Your task to perform on an android device: turn on javascript in the chrome app Image 0: 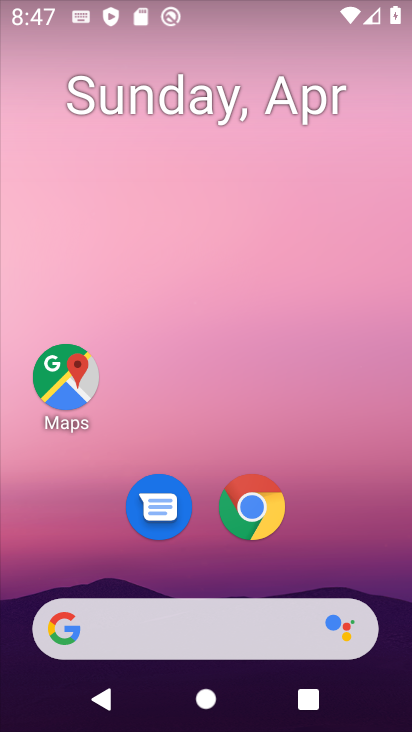
Step 0: drag from (245, 574) to (272, 159)
Your task to perform on an android device: turn on javascript in the chrome app Image 1: 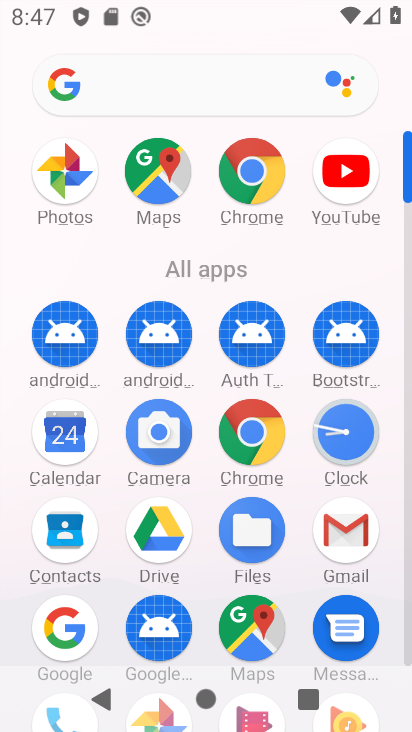
Step 1: click (248, 165)
Your task to perform on an android device: turn on javascript in the chrome app Image 2: 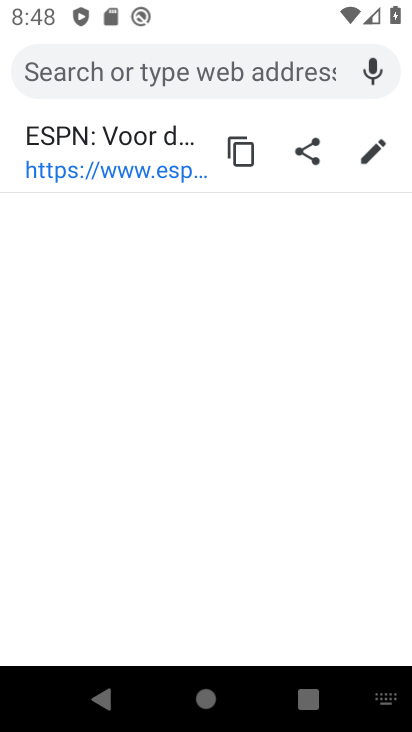
Step 2: click (96, 722)
Your task to perform on an android device: turn on javascript in the chrome app Image 3: 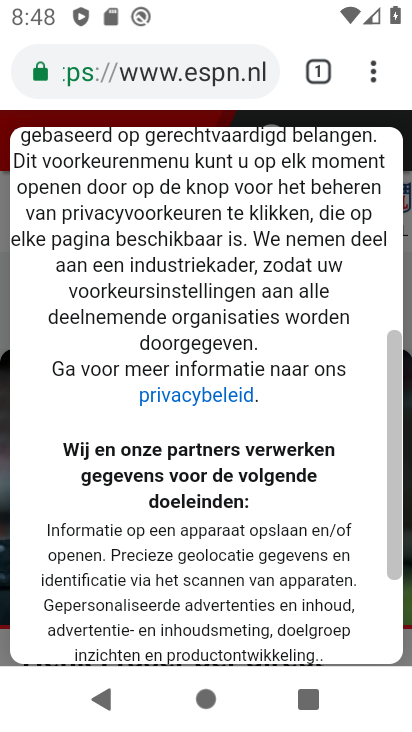
Step 3: click (377, 80)
Your task to perform on an android device: turn on javascript in the chrome app Image 4: 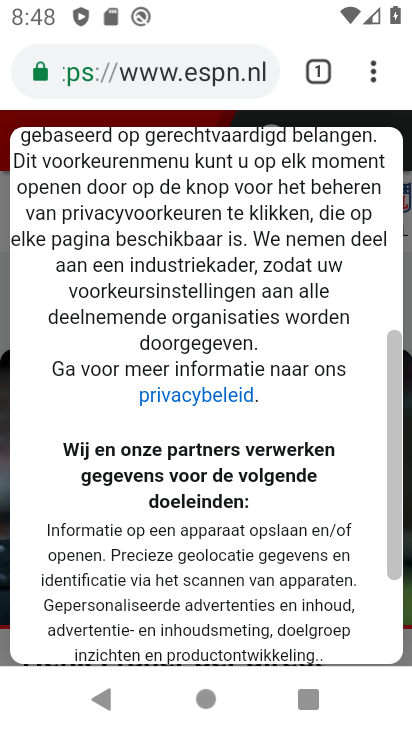
Step 4: click (379, 72)
Your task to perform on an android device: turn on javascript in the chrome app Image 5: 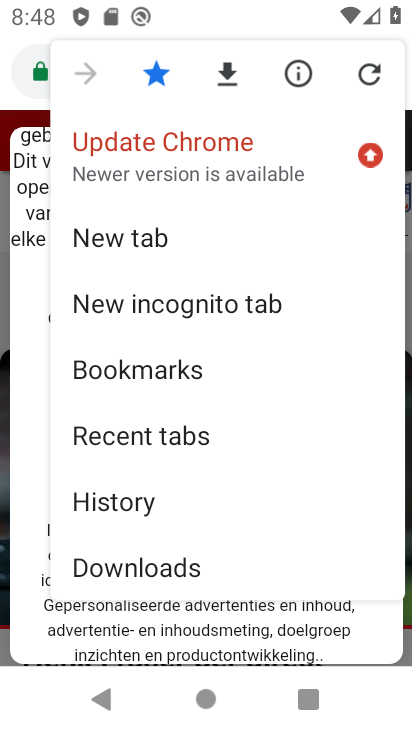
Step 5: drag from (178, 490) to (205, 107)
Your task to perform on an android device: turn on javascript in the chrome app Image 6: 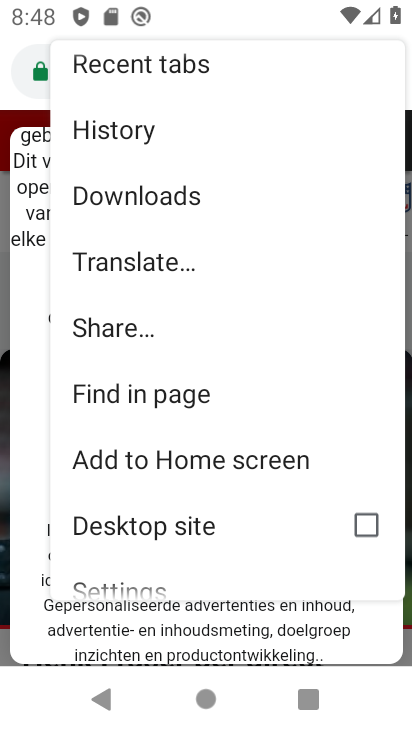
Step 6: drag from (181, 410) to (189, 105)
Your task to perform on an android device: turn on javascript in the chrome app Image 7: 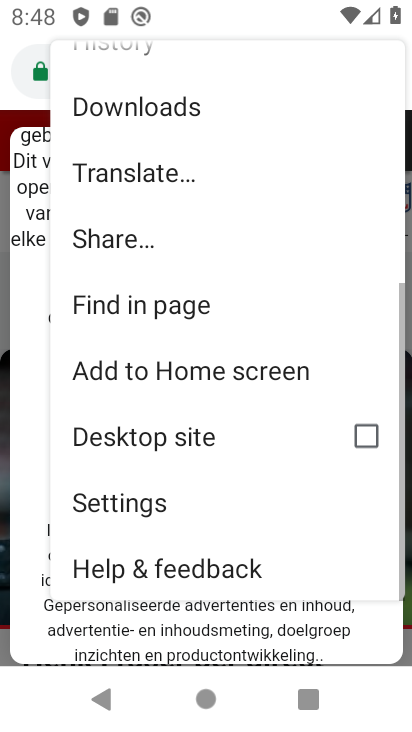
Step 7: click (176, 499)
Your task to perform on an android device: turn on javascript in the chrome app Image 8: 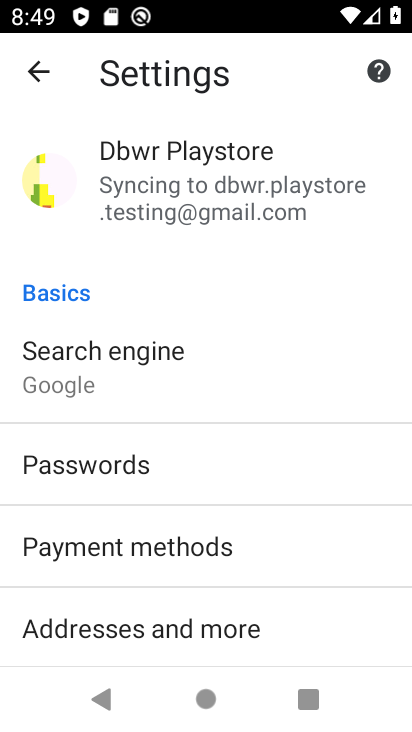
Step 8: drag from (178, 328) to (203, 48)
Your task to perform on an android device: turn on javascript in the chrome app Image 9: 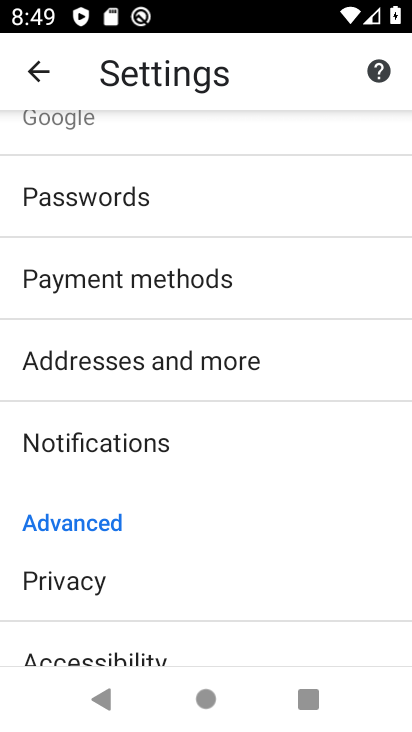
Step 9: drag from (167, 520) to (186, 241)
Your task to perform on an android device: turn on javascript in the chrome app Image 10: 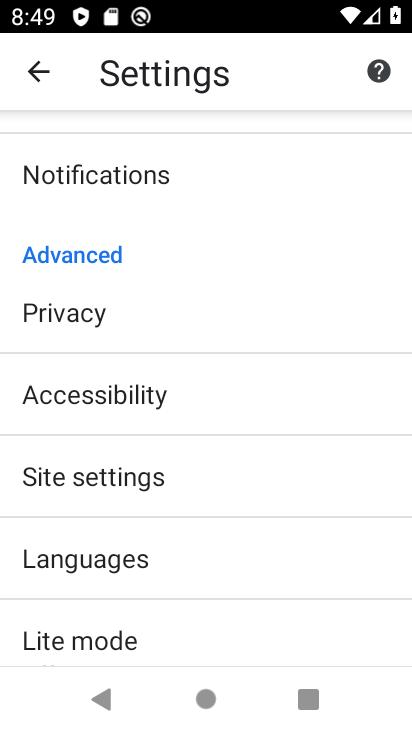
Step 10: click (123, 477)
Your task to perform on an android device: turn on javascript in the chrome app Image 11: 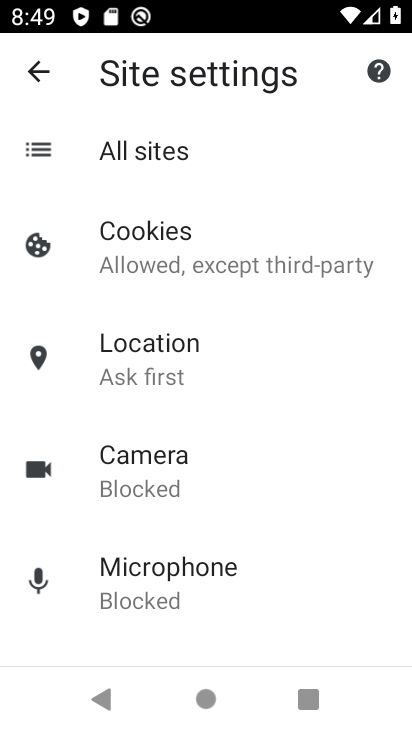
Step 11: drag from (193, 415) to (222, 119)
Your task to perform on an android device: turn on javascript in the chrome app Image 12: 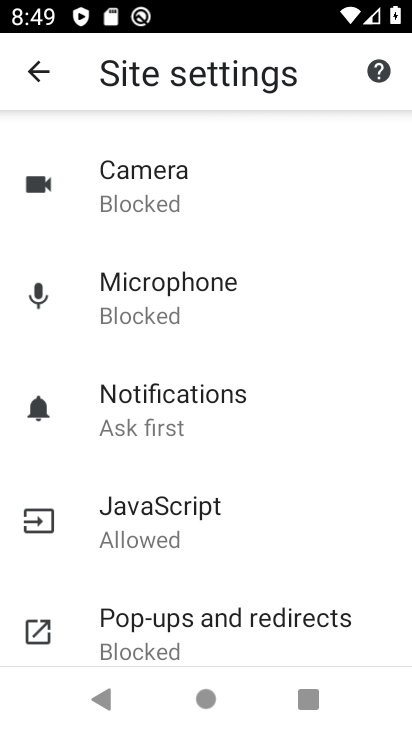
Step 12: click (218, 511)
Your task to perform on an android device: turn on javascript in the chrome app Image 13: 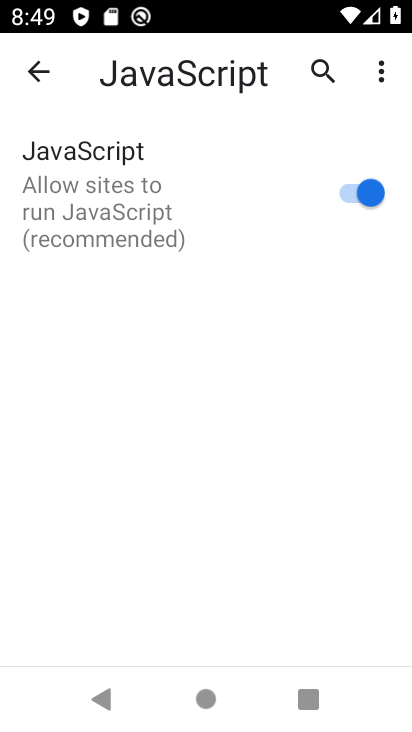
Step 13: task complete